Your task to perform on an android device: Turn off the flashlight Image 0: 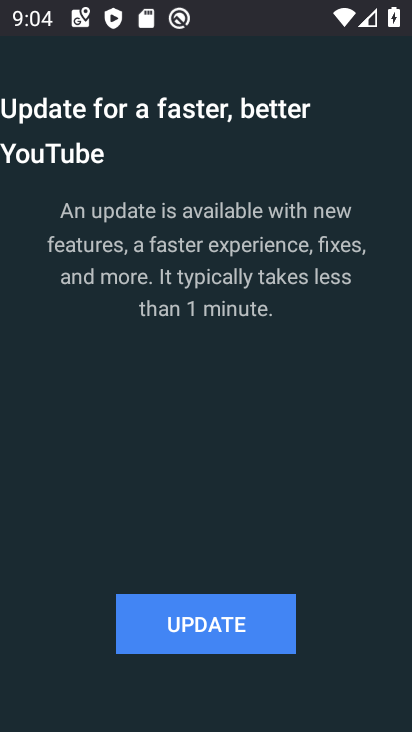
Step 0: press home button
Your task to perform on an android device: Turn off the flashlight Image 1: 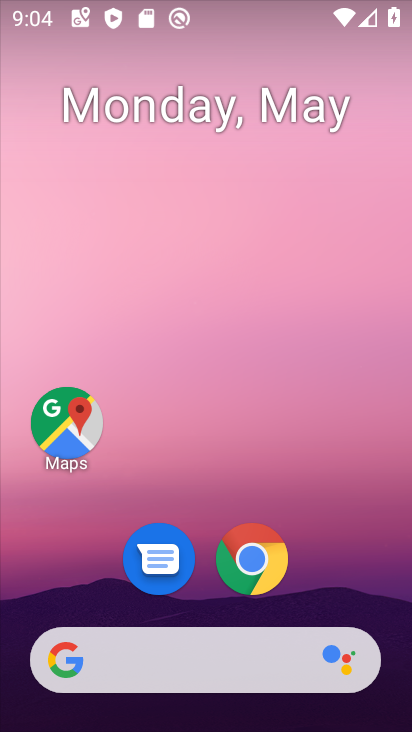
Step 1: drag from (346, 550) to (135, 19)
Your task to perform on an android device: Turn off the flashlight Image 2: 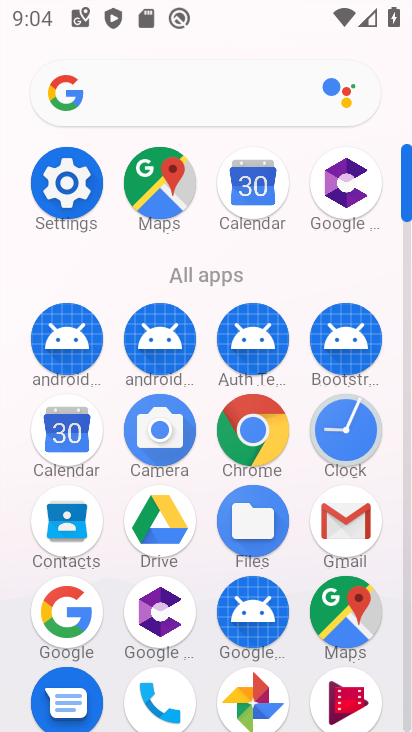
Step 2: click (66, 178)
Your task to perform on an android device: Turn off the flashlight Image 3: 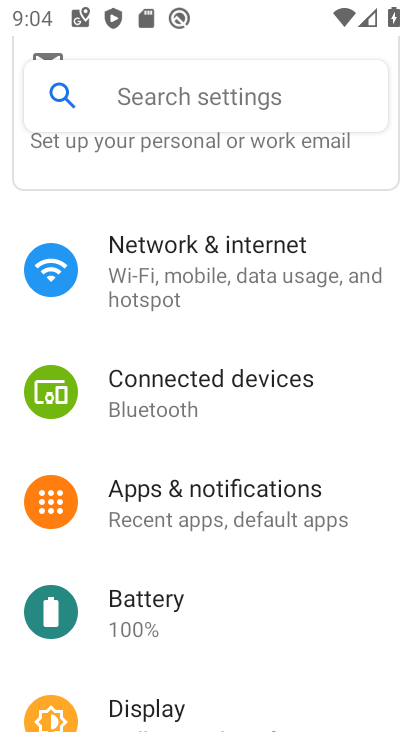
Step 3: drag from (278, 563) to (223, 353)
Your task to perform on an android device: Turn off the flashlight Image 4: 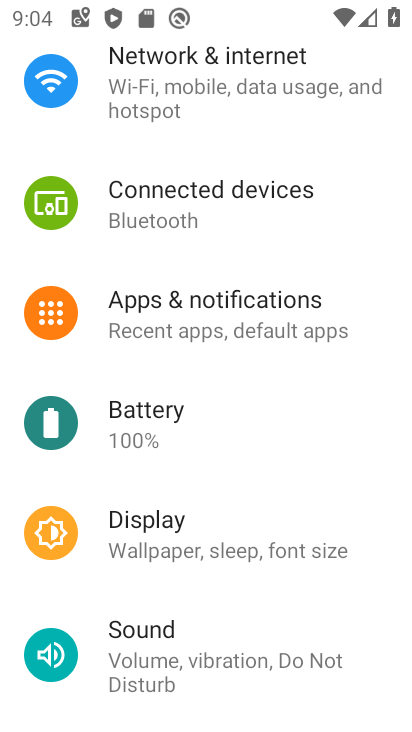
Step 4: click (172, 552)
Your task to perform on an android device: Turn off the flashlight Image 5: 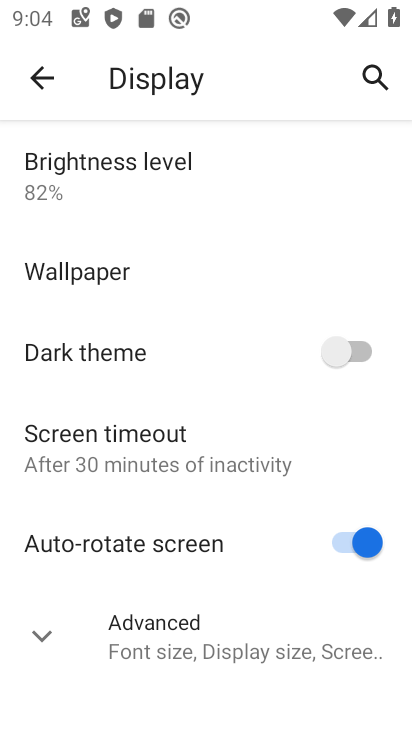
Step 5: task complete